Your task to perform on an android device: Show me recent news Image 0: 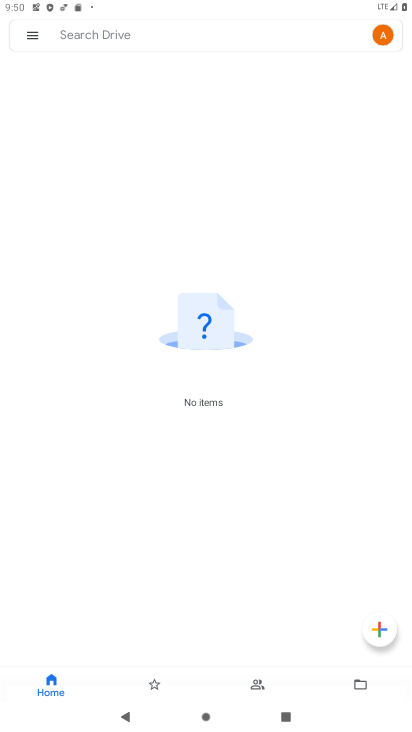
Step 0: press home button
Your task to perform on an android device: Show me recent news Image 1: 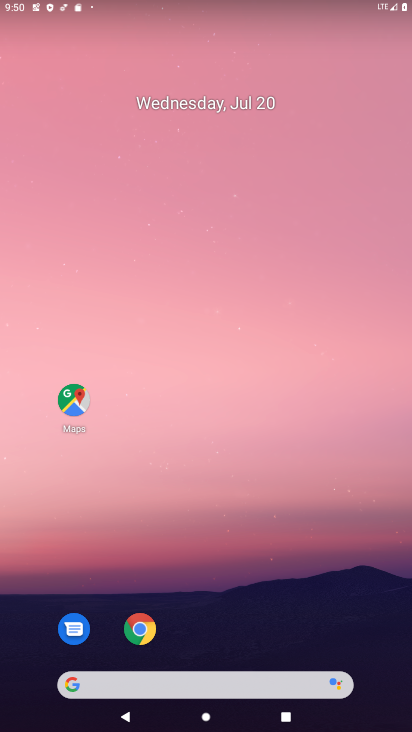
Step 1: click (131, 622)
Your task to perform on an android device: Show me recent news Image 2: 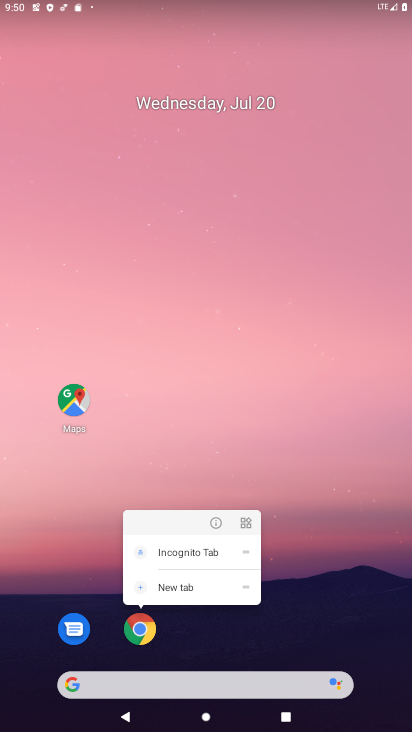
Step 2: click (131, 622)
Your task to perform on an android device: Show me recent news Image 3: 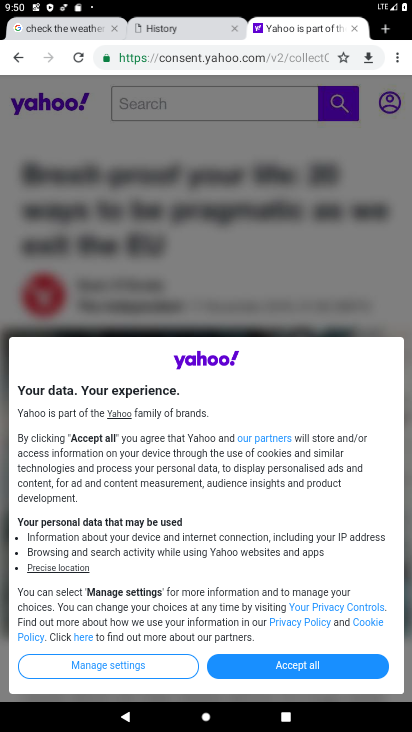
Step 3: click (170, 53)
Your task to perform on an android device: Show me recent news Image 4: 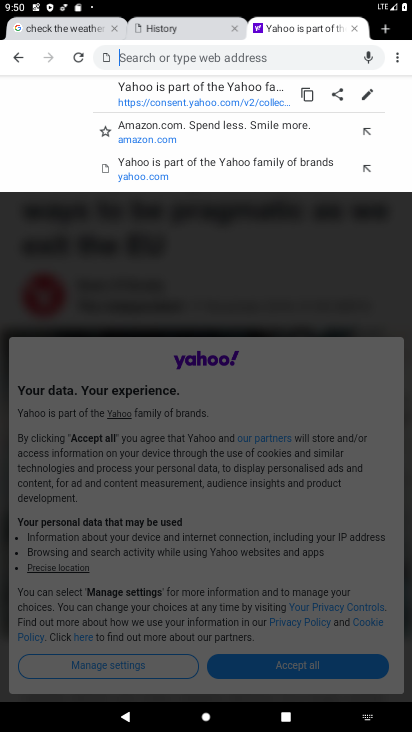
Step 4: type "Show me recent news"
Your task to perform on an android device: Show me recent news Image 5: 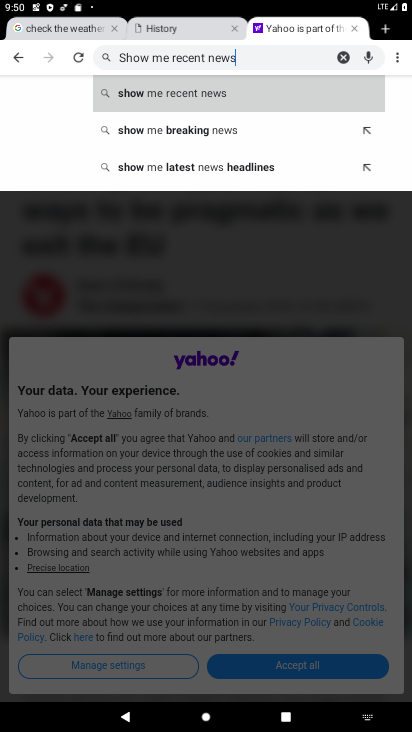
Step 5: type ""
Your task to perform on an android device: Show me recent news Image 6: 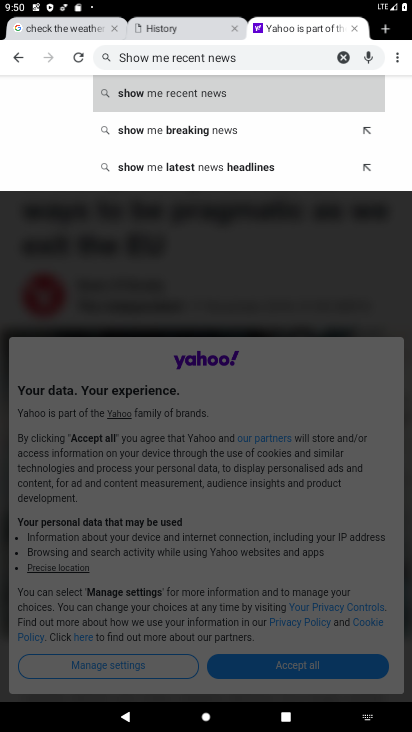
Step 6: click (139, 93)
Your task to perform on an android device: Show me recent news Image 7: 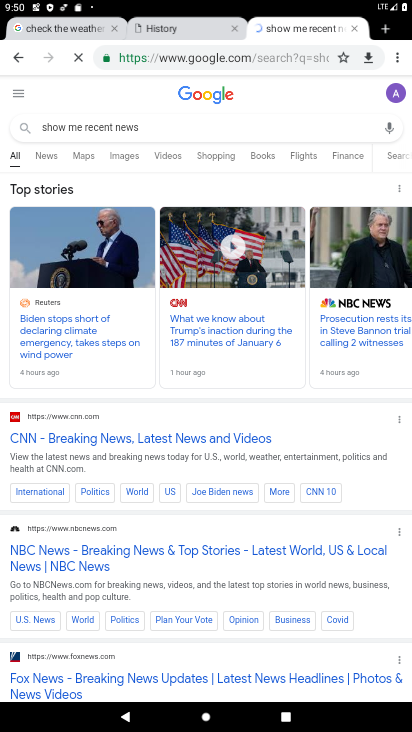
Step 7: task complete